Your task to perform on an android device: create a new album in the google photos Image 0: 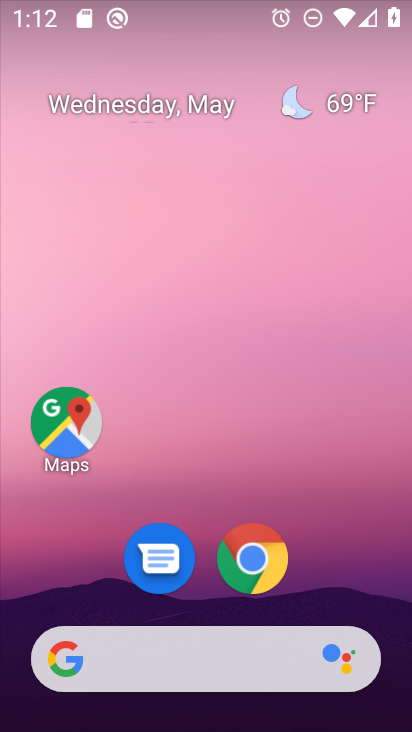
Step 0: drag from (390, 643) to (320, 40)
Your task to perform on an android device: create a new album in the google photos Image 1: 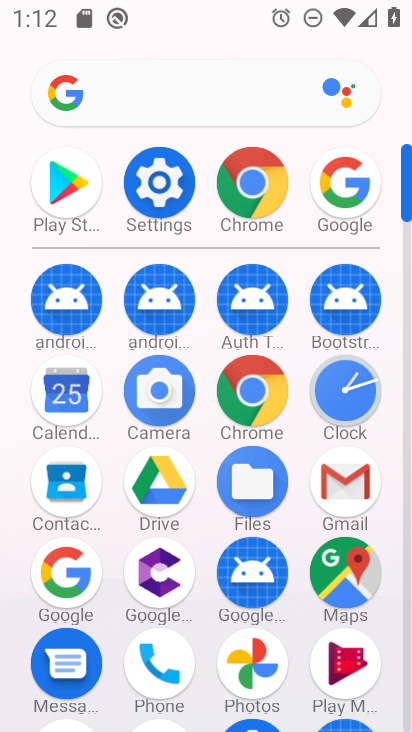
Step 1: click (269, 642)
Your task to perform on an android device: create a new album in the google photos Image 2: 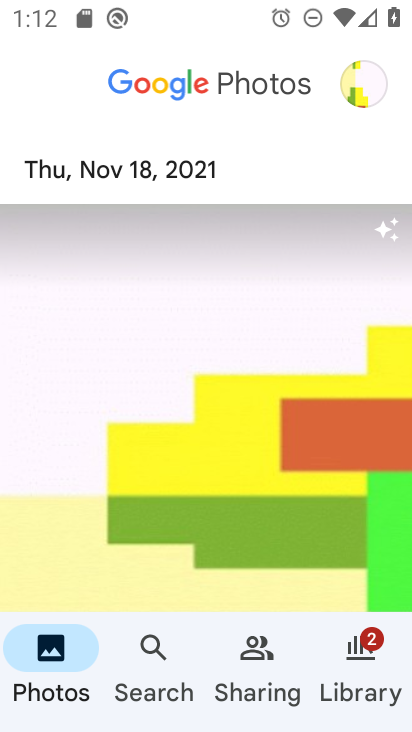
Step 2: press back button
Your task to perform on an android device: create a new album in the google photos Image 3: 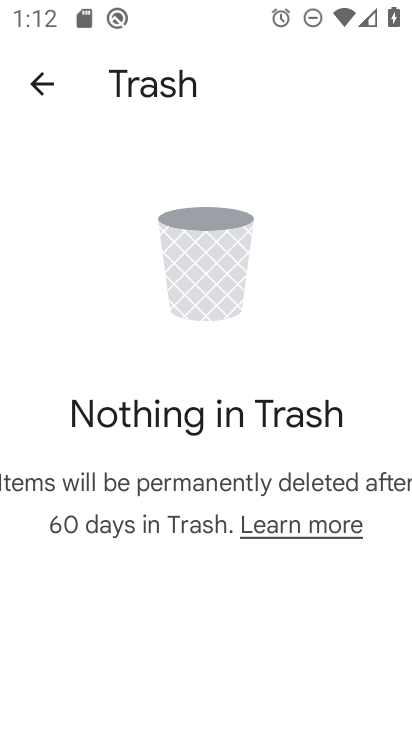
Step 3: press back button
Your task to perform on an android device: create a new album in the google photos Image 4: 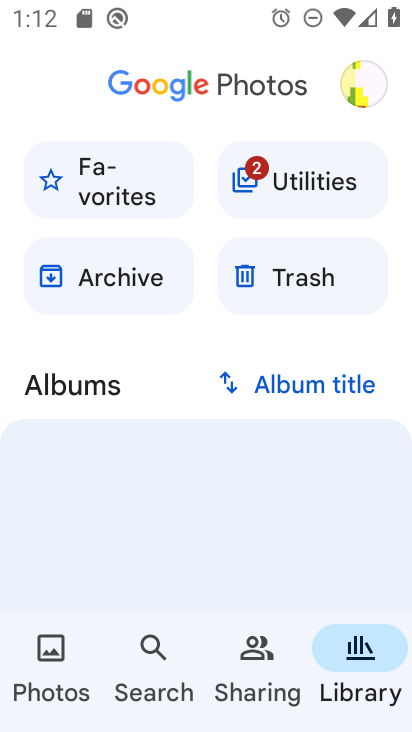
Step 4: click (56, 636)
Your task to perform on an android device: create a new album in the google photos Image 5: 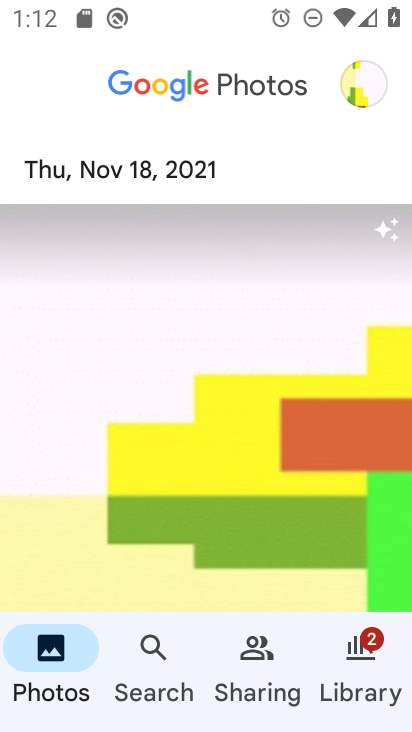
Step 5: drag from (163, 198) to (134, 524)
Your task to perform on an android device: create a new album in the google photos Image 6: 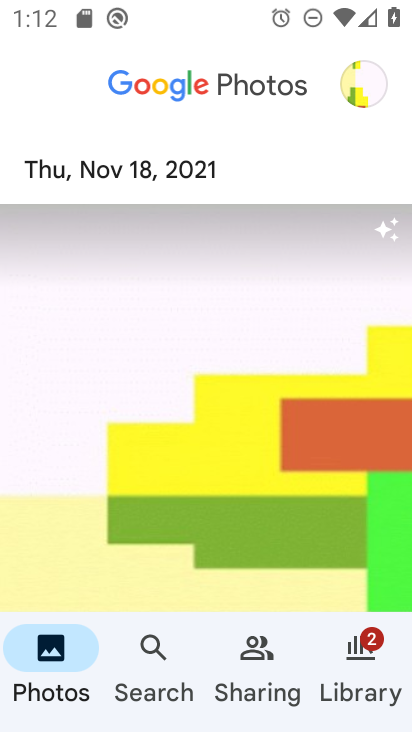
Step 6: drag from (126, 518) to (198, 29)
Your task to perform on an android device: create a new album in the google photos Image 7: 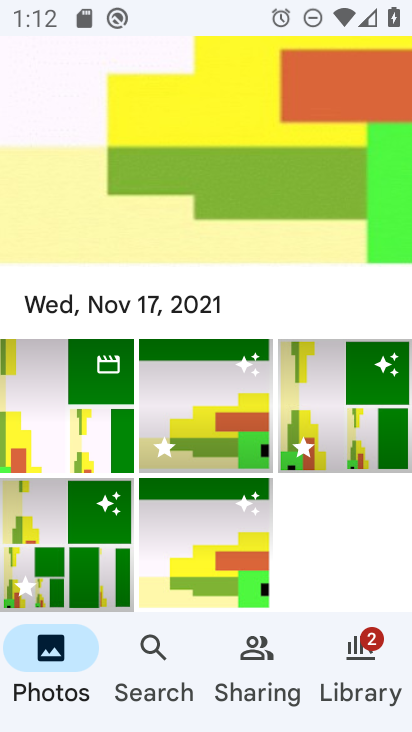
Step 7: click (85, 403)
Your task to perform on an android device: create a new album in the google photos Image 8: 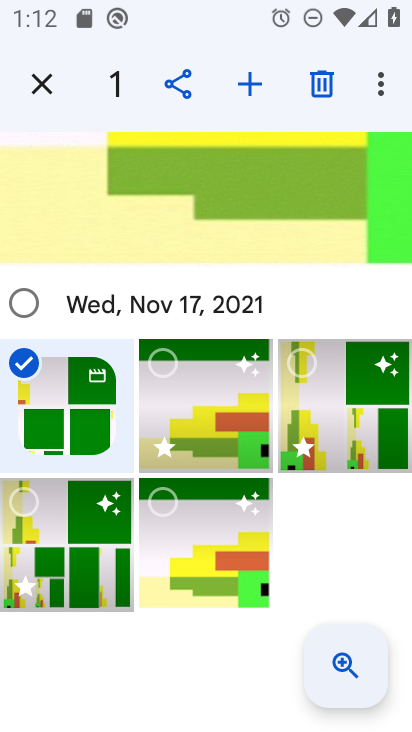
Step 8: click (244, 72)
Your task to perform on an android device: create a new album in the google photos Image 9: 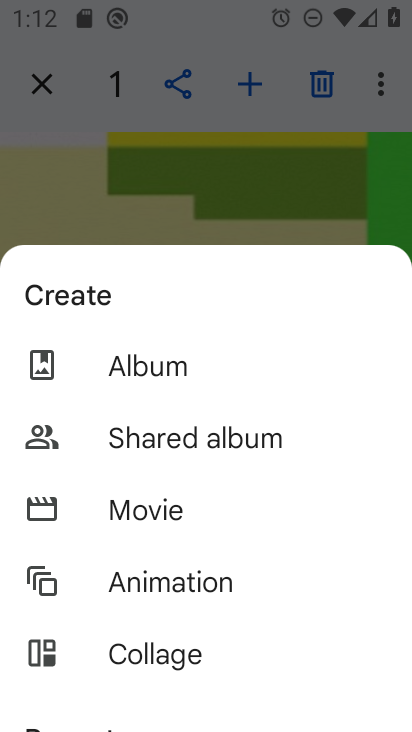
Step 9: click (230, 381)
Your task to perform on an android device: create a new album in the google photos Image 10: 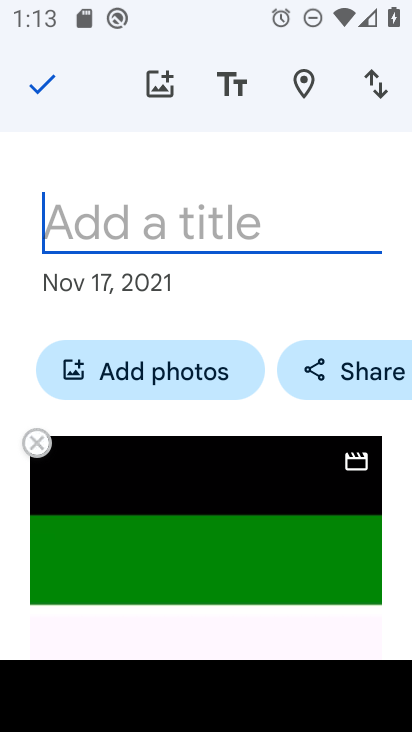
Step 10: type "VV"
Your task to perform on an android device: create a new album in the google photos Image 11: 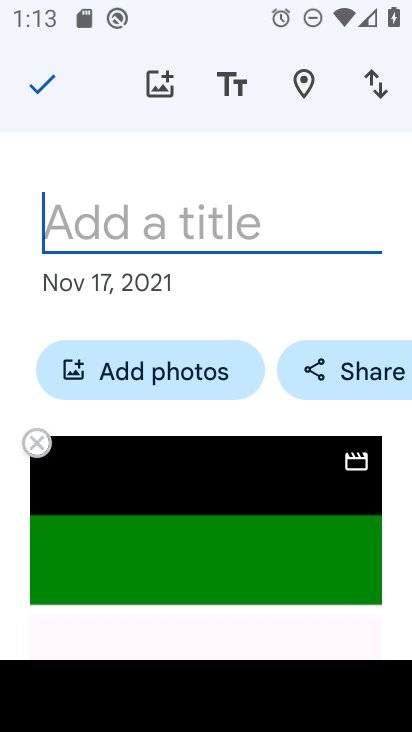
Step 11: click (45, 71)
Your task to perform on an android device: create a new album in the google photos Image 12: 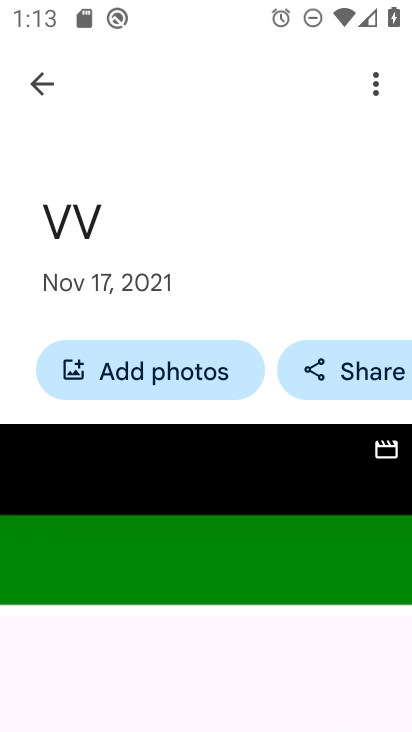
Step 12: task complete